Your task to perform on an android device: manage bookmarks in the chrome app Image 0: 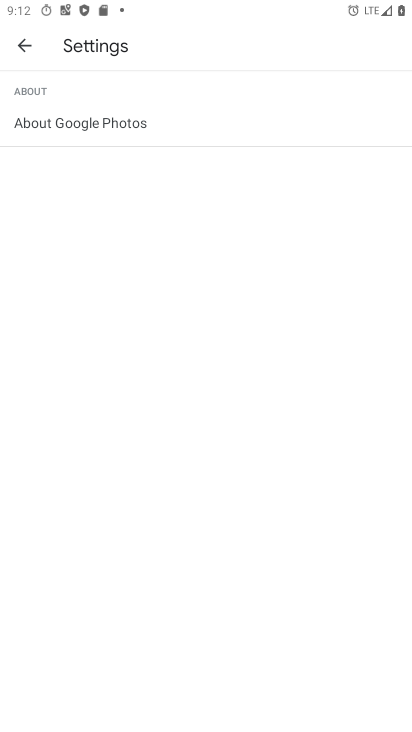
Step 0: press home button
Your task to perform on an android device: manage bookmarks in the chrome app Image 1: 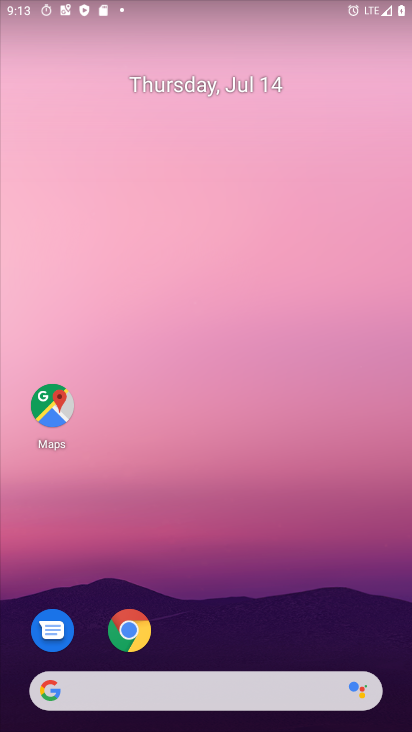
Step 1: click (134, 633)
Your task to perform on an android device: manage bookmarks in the chrome app Image 2: 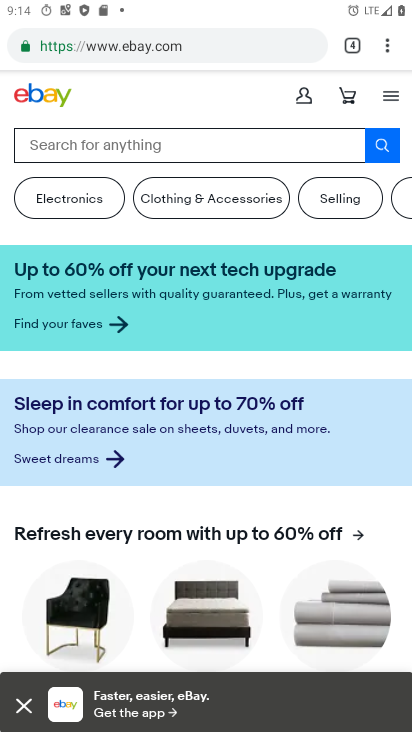
Step 2: click (388, 48)
Your task to perform on an android device: manage bookmarks in the chrome app Image 3: 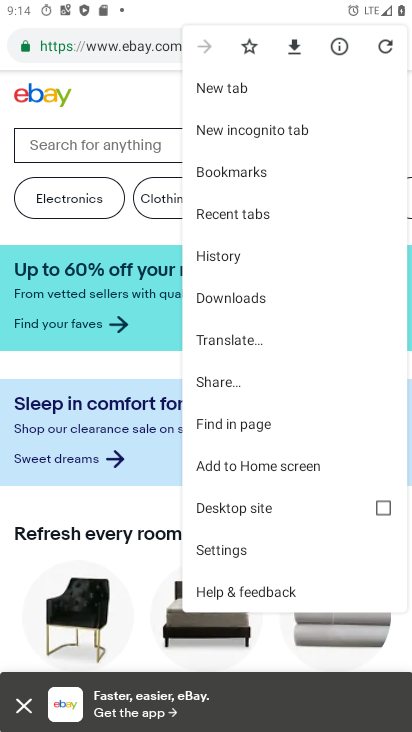
Step 3: click (238, 170)
Your task to perform on an android device: manage bookmarks in the chrome app Image 4: 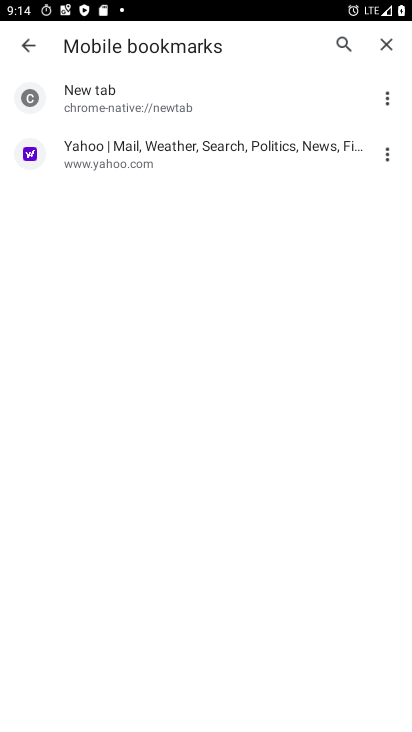
Step 4: click (384, 150)
Your task to perform on an android device: manage bookmarks in the chrome app Image 5: 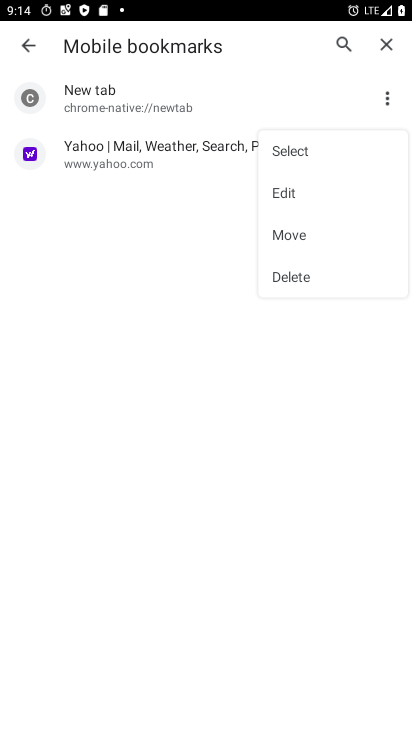
Step 5: click (290, 186)
Your task to perform on an android device: manage bookmarks in the chrome app Image 6: 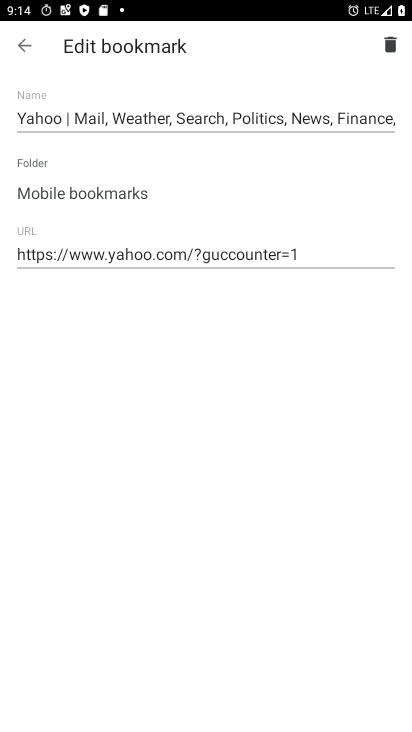
Step 6: click (140, 113)
Your task to perform on an android device: manage bookmarks in the chrome app Image 7: 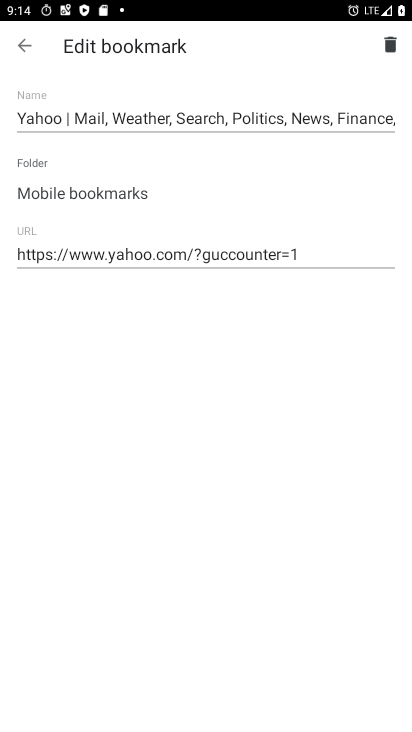
Step 7: click (140, 113)
Your task to perform on an android device: manage bookmarks in the chrome app Image 8: 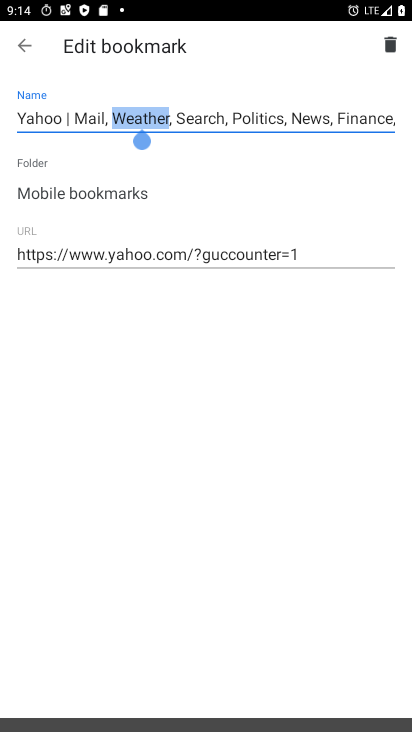
Step 8: click (140, 113)
Your task to perform on an android device: manage bookmarks in the chrome app Image 9: 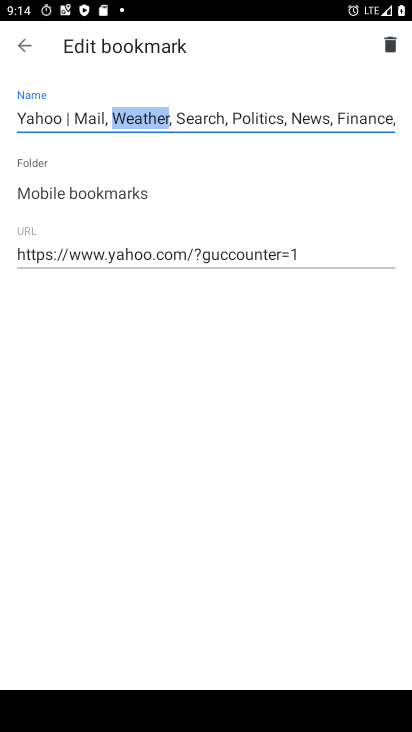
Step 9: click (140, 113)
Your task to perform on an android device: manage bookmarks in the chrome app Image 10: 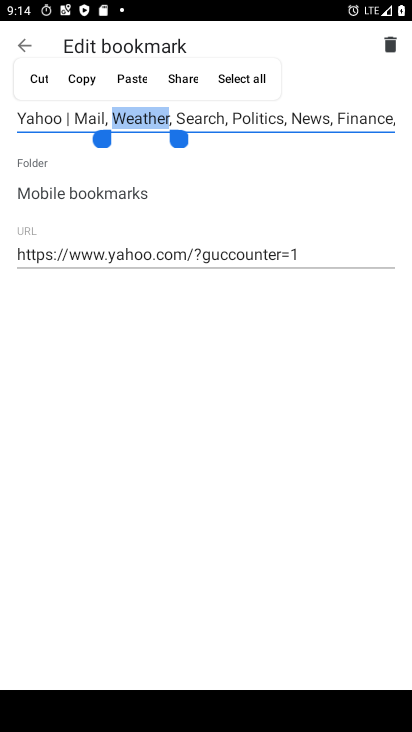
Step 10: click (37, 77)
Your task to perform on an android device: manage bookmarks in the chrome app Image 11: 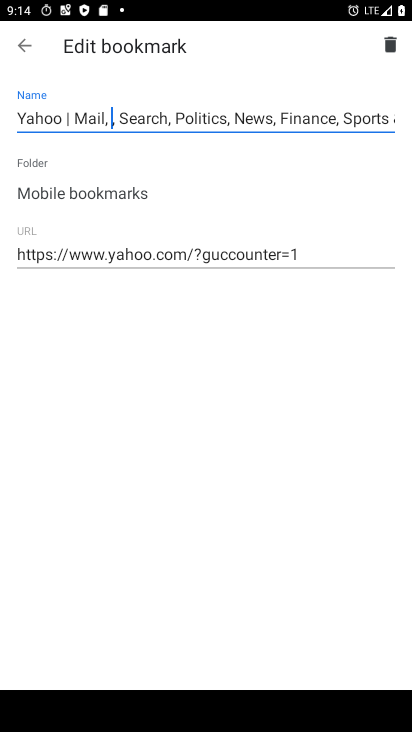
Step 11: click (17, 40)
Your task to perform on an android device: manage bookmarks in the chrome app Image 12: 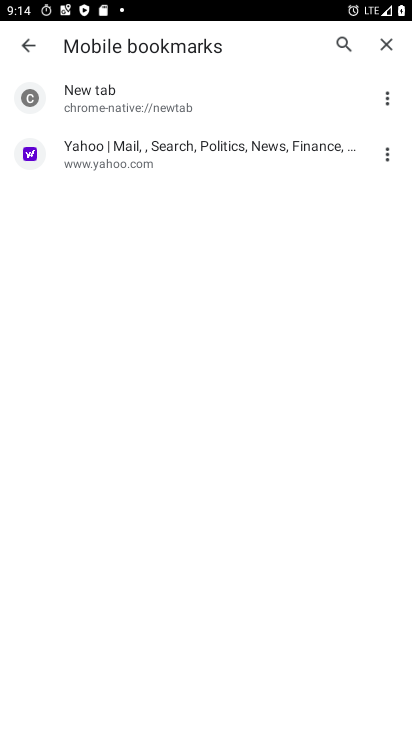
Step 12: task complete